Your task to perform on an android device: Open settings on Google Maps Image 0: 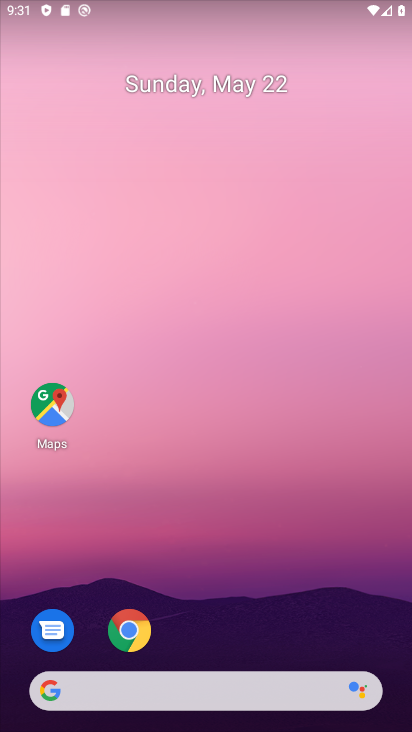
Step 0: click (56, 395)
Your task to perform on an android device: Open settings on Google Maps Image 1: 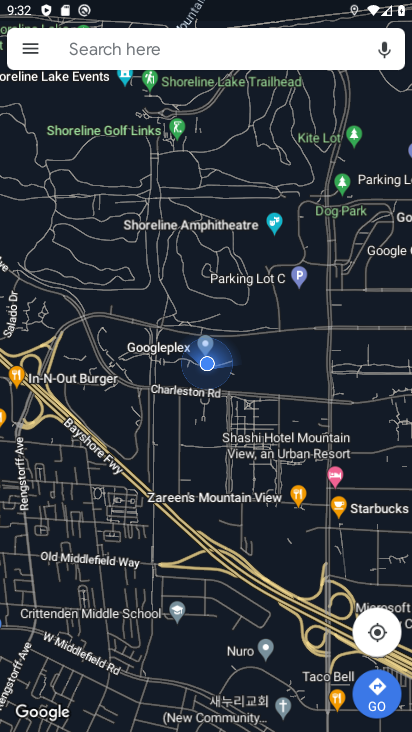
Step 1: click (27, 39)
Your task to perform on an android device: Open settings on Google Maps Image 2: 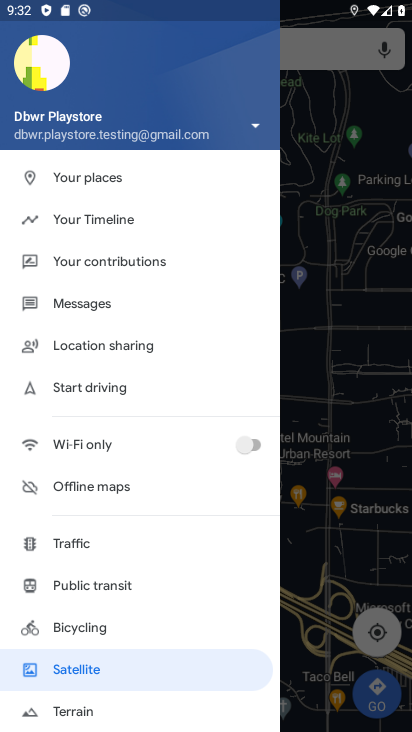
Step 2: drag from (179, 645) to (173, 348)
Your task to perform on an android device: Open settings on Google Maps Image 3: 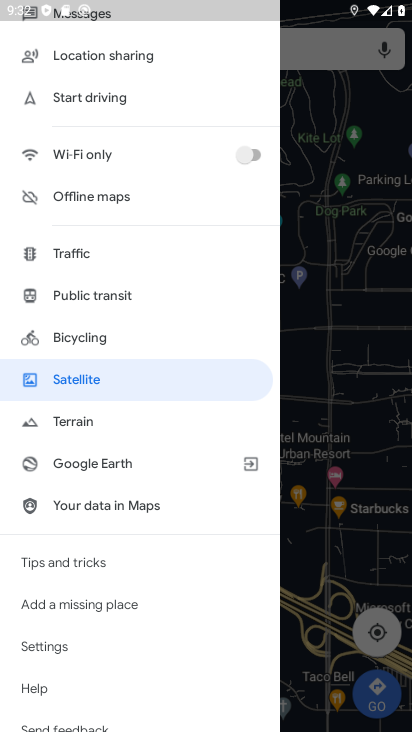
Step 3: click (45, 654)
Your task to perform on an android device: Open settings on Google Maps Image 4: 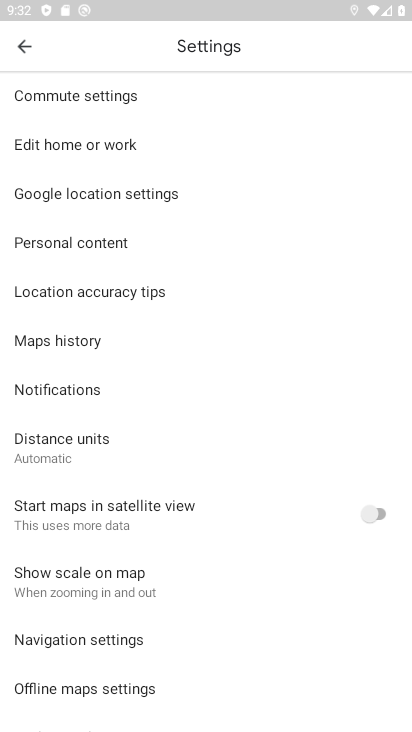
Step 4: task complete